Your task to perform on an android device: open app "Microsoft Excel" (install if not already installed) Image 0: 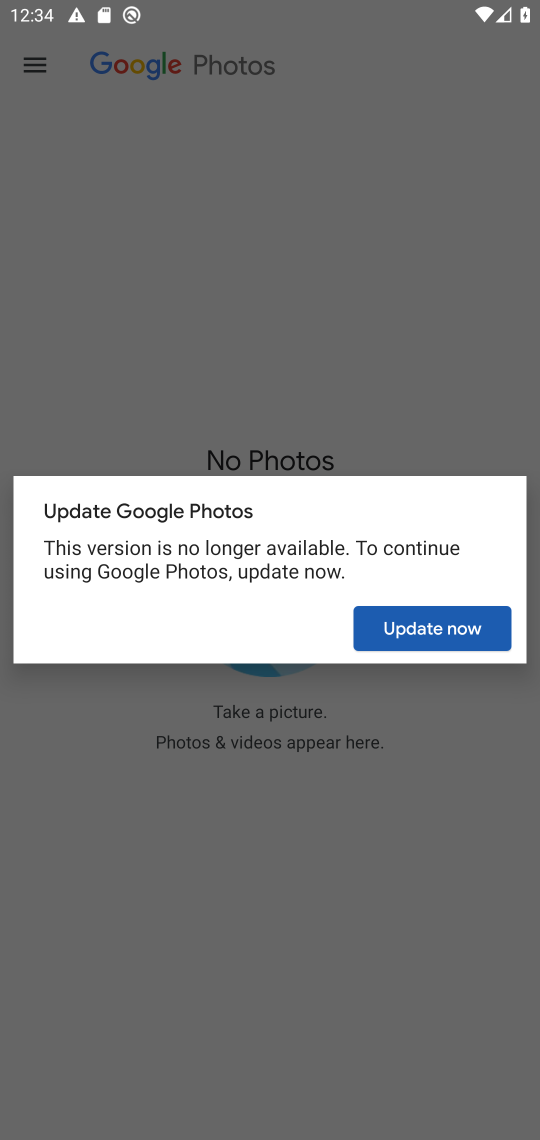
Step 0: press home button
Your task to perform on an android device: open app "Microsoft Excel" (install if not already installed) Image 1: 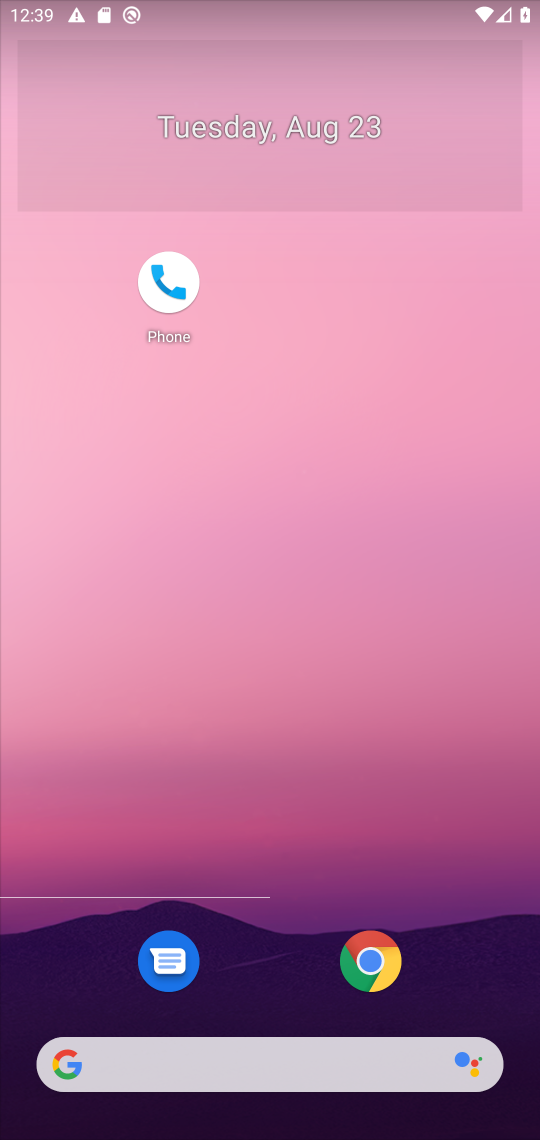
Step 1: task complete